Your task to perform on an android device: What is the recent news? Image 0: 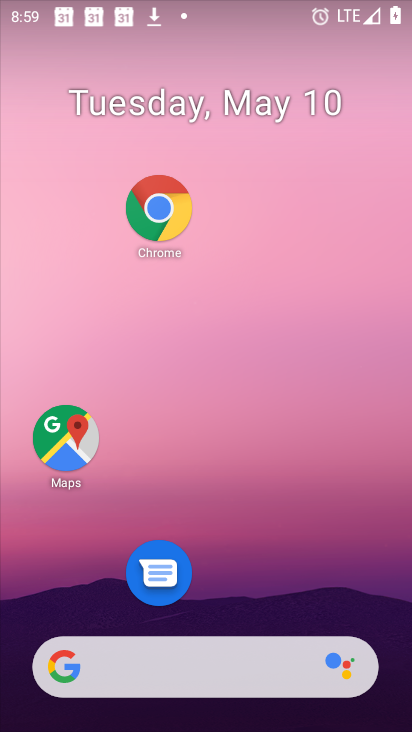
Step 0: drag from (267, 711) to (254, 181)
Your task to perform on an android device: What is the recent news? Image 1: 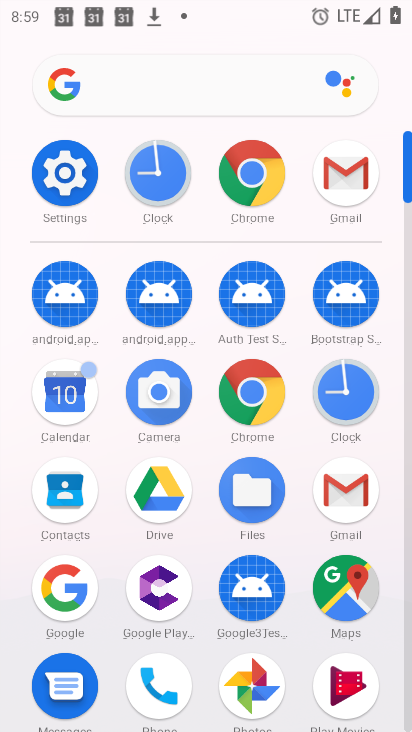
Step 1: click (108, 93)
Your task to perform on an android device: What is the recent news? Image 2: 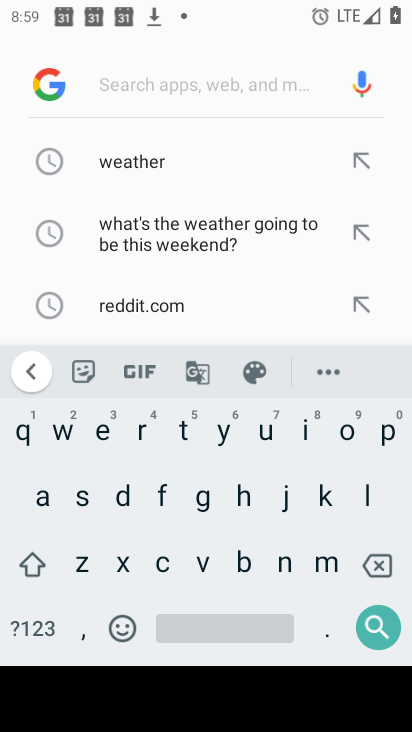
Step 2: click (132, 432)
Your task to perform on an android device: What is the recent news? Image 3: 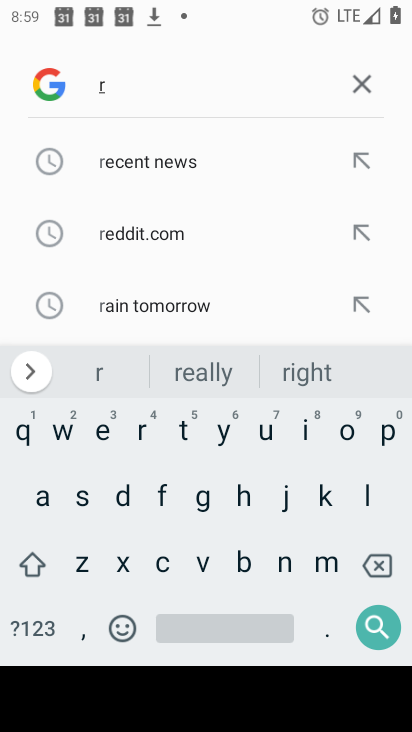
Step 3: click (167, 176)
Your task to perform on an android device: What is the recent news? Image 4: 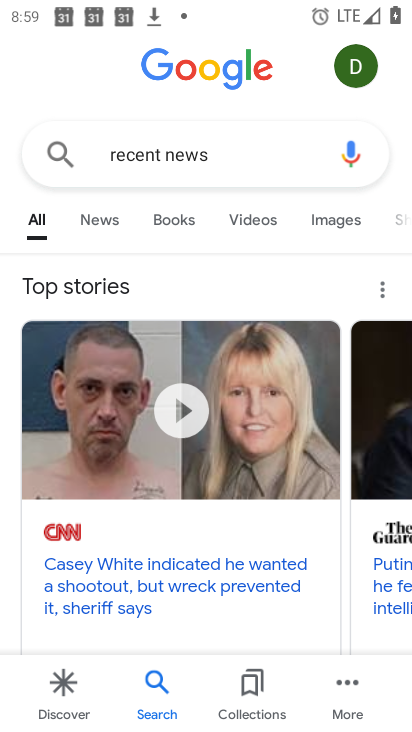
Step 4: task complete